Your task to perform on an android device: Show me popular games on the Play Store Image 0: 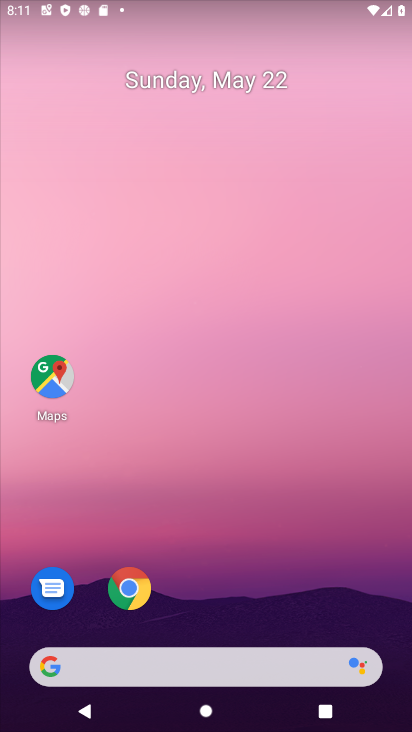
Step 0: drag from (248, 567) to (190, 141)
Your task to perform on an android device: Show me popular games on the Play Store Image 1: 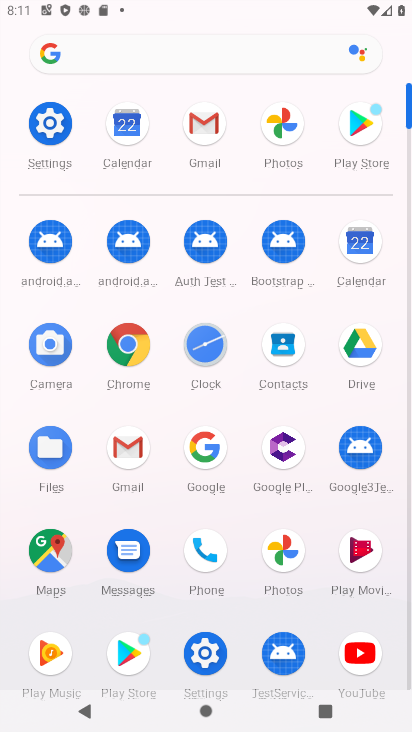
Step 1: click (129, 642)
Your task to perform on an android device: Show me popular games on the Play Store Image 2: 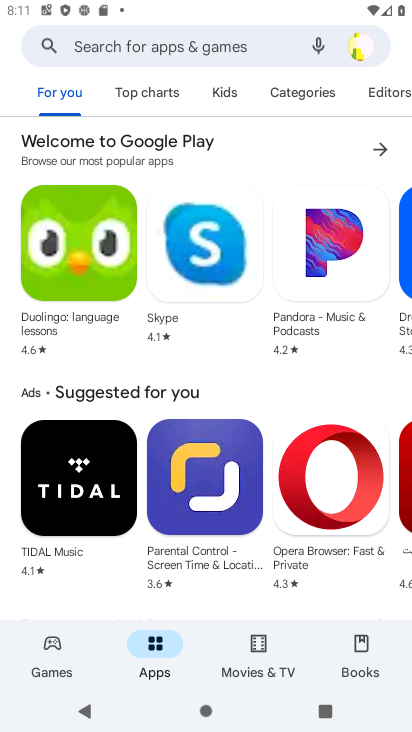
Step 2: click (38, 650)
Your task to perform on an android device: Show me popular games on the Play Store Image 3: 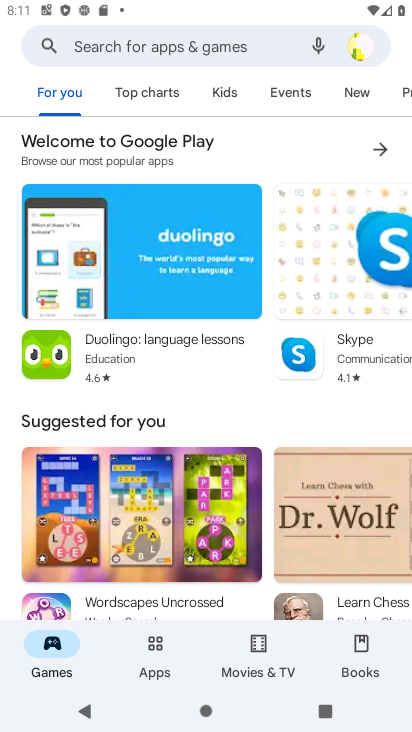
Step 3: task complete